Your task to perform on an android device: star an email in the gmail app Image 0: 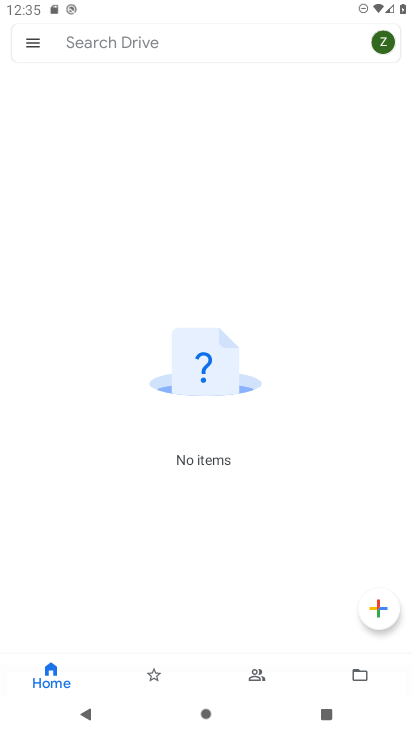
Step 0: press home button
Your task to perform on an android device: star an email in the gmail app Image 1: 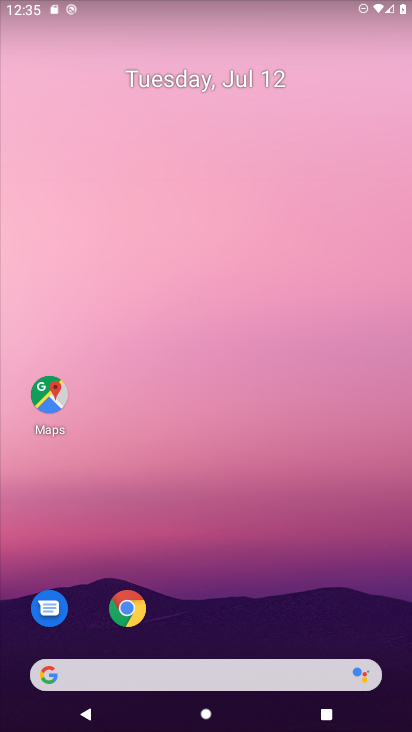
Step 1: drag from (238, 630) to (224, 14)
Your task to perform on an android device: star an email in the gmail app Image 2: 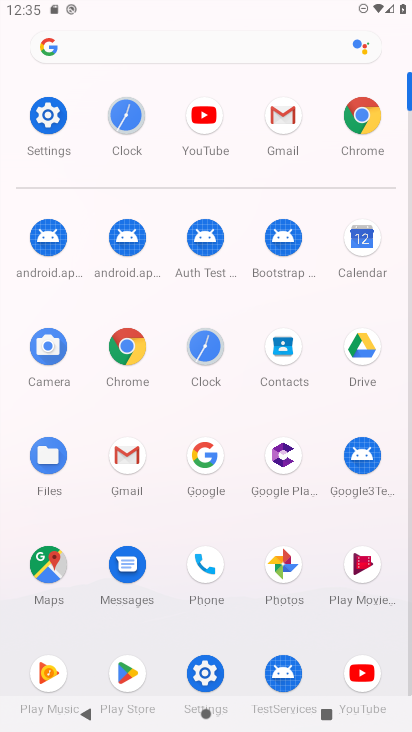
Step 2: click (134, 461)
Your task to perform on an android device: star an email in the gmail app Image 3: 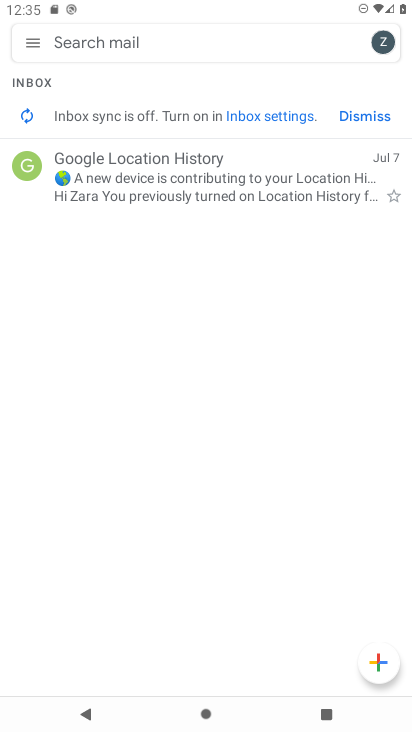
Step 3: click (252, 199)
Your task to perform on an android device: star an email in the gmail app Image 4: 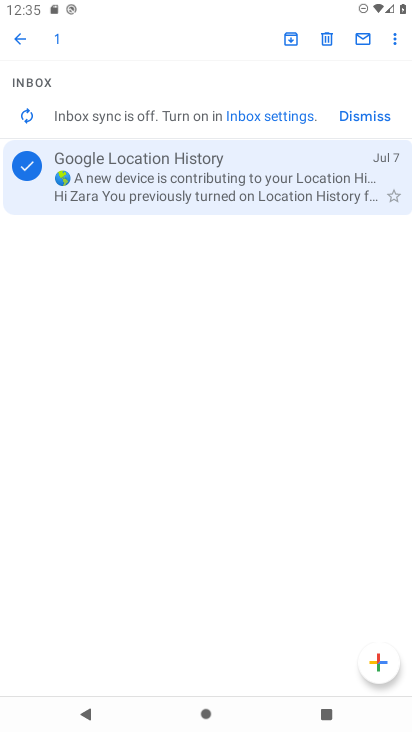
Step 4: click (391, 30)
Your task to perform on an android device: star an email in the gmail app Image 5: 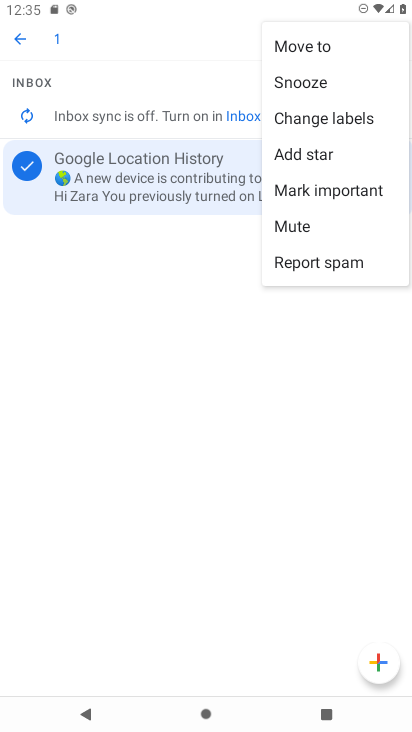
Step 5: click (308, 151)
Your task to perform on an android device: star an email in the gmail app Image 6: 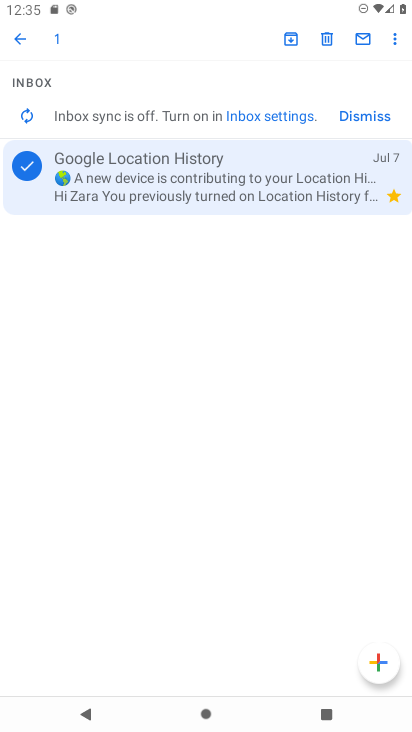
Step 6: task complete